Your task to perform on an android device: search for starred emails in the gmail app Image 0: 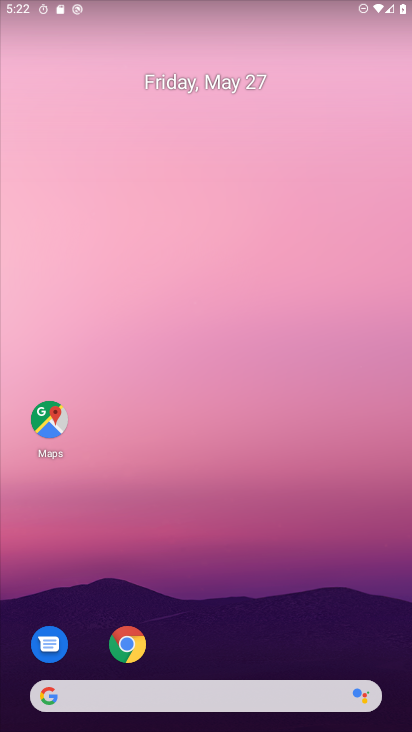
Step 0: drag from (191, 685) to (264, 37)
Your task to perform on an android device: search for starred emails in the gmail app Image 1: 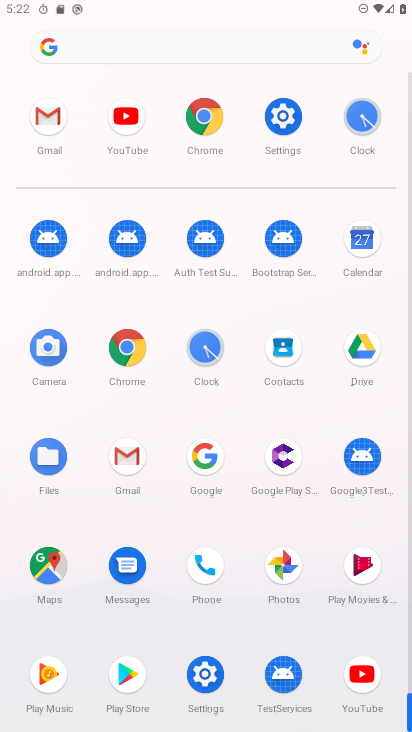
Step 1: click (44, 123)
Your task to perform on an android device: search for starred emails in the gmail app Image 2: 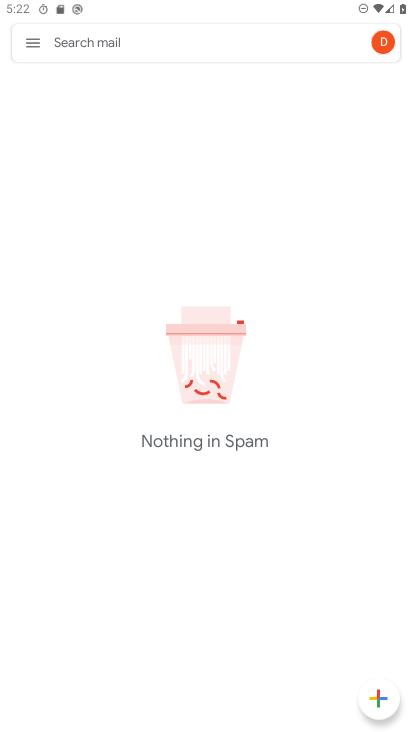
Step 2: click (33, 39)
Your task to perform on an android device: search for starred emails in the gmail app Image 3: 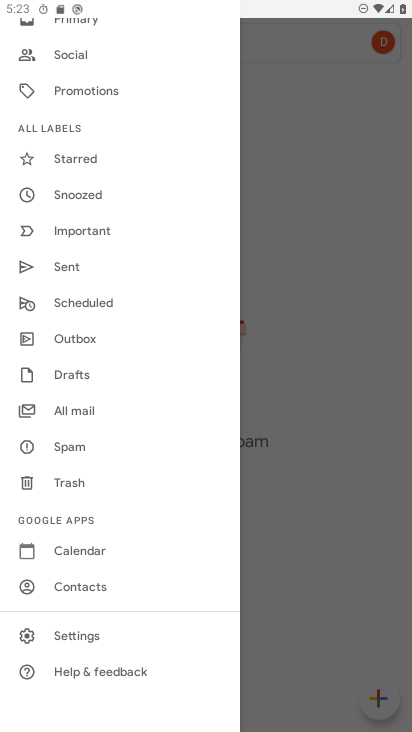
Step 3: click (71, 154)
Your task to perform on an android device: search for starred emails in the gmail app Image 4: 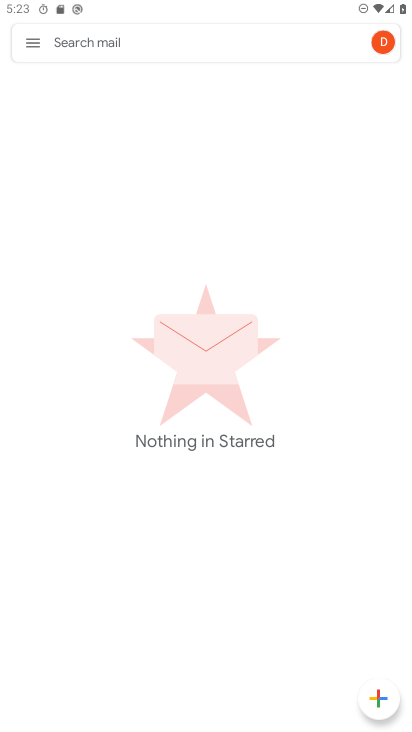
Step 4: task complete